Your task to perform on an android device: Open Amazon Image 0: 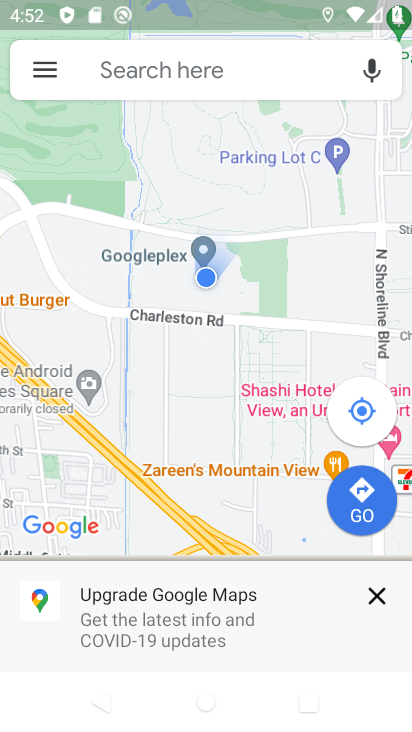
Step 0: press back button
Your task to perform on an android device: Open Amazon Image 1: 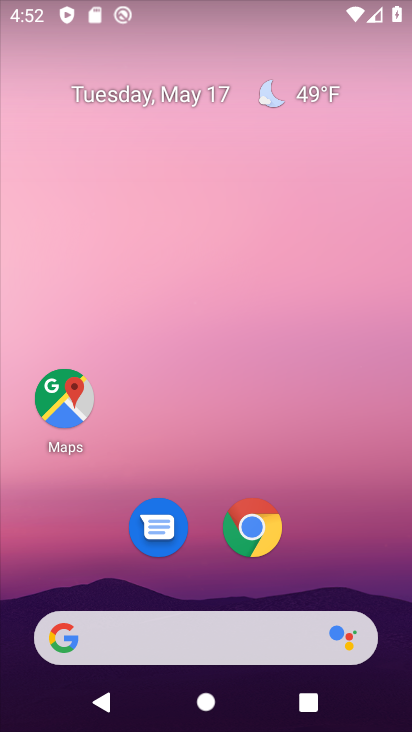
Step 1: drag from (323, 538) to (285, 4)
Your task to perform on an android device: Open Amazon Image 2: 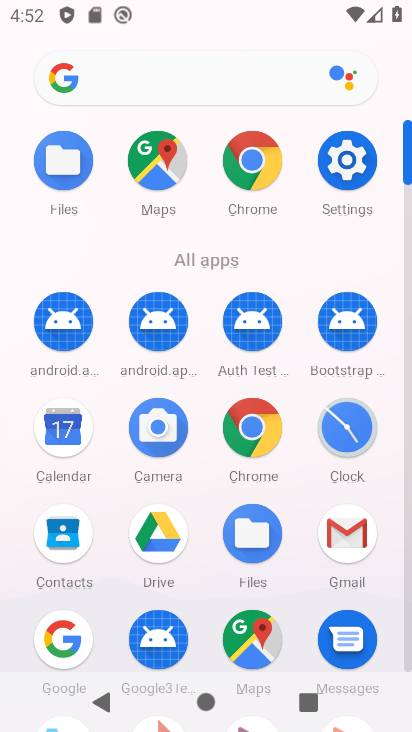
Step 2: click (255, 421)
Your task to perform on an android device: Open Amazon Image 3: 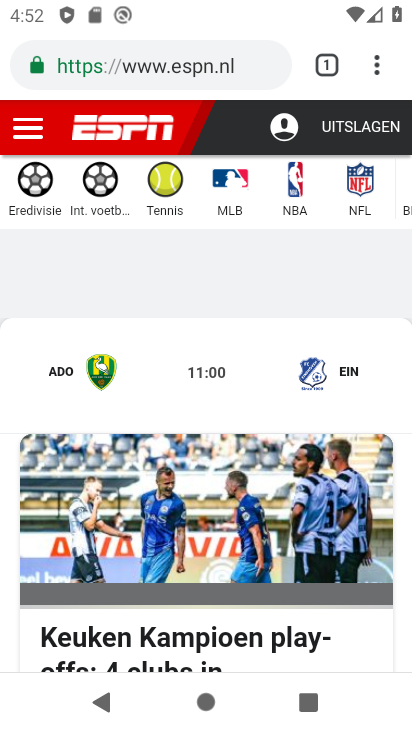
Step 3: click (172, 59)
Your task to perform on an android device: Open Amazon Image 4: 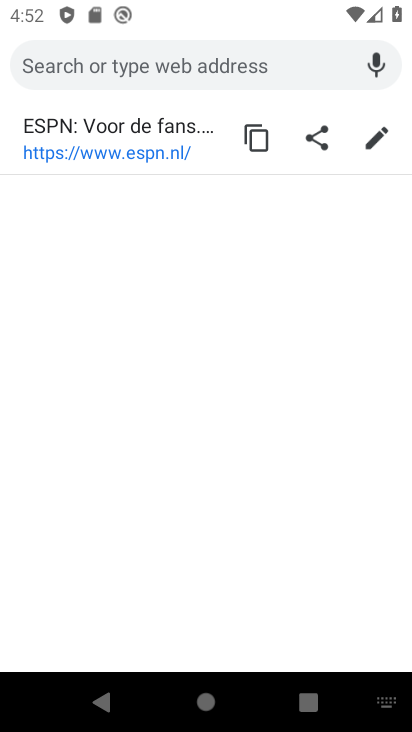
Step 4: type "Amazon"
Your task to perform on an android device: Open Amazon Image 5: 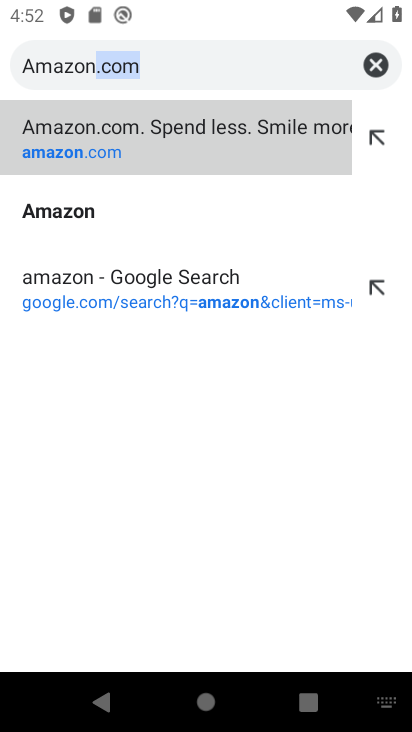
Step 5: type ""
Your task to perform on an android device: Open Amazon Image 6: 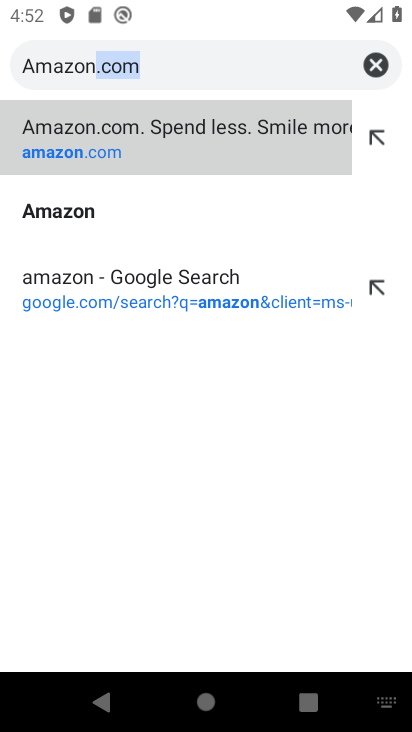
Step 6: click (115, 137)
Your task to perform on an android device: Open Amazon Image 7: 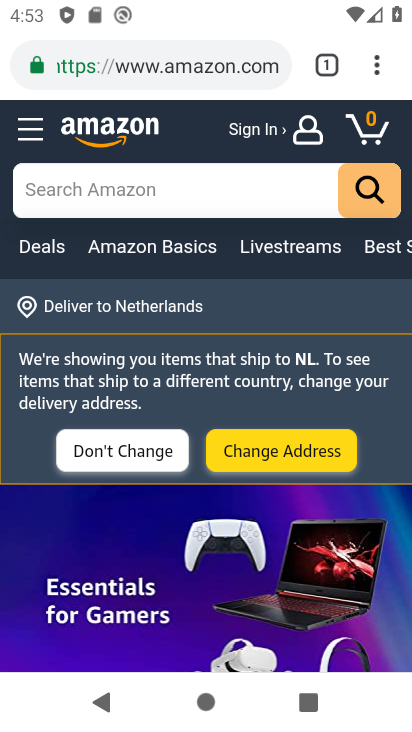
Step 7: task complete